Your task to perform on an android device: Open sound settings Image 0: 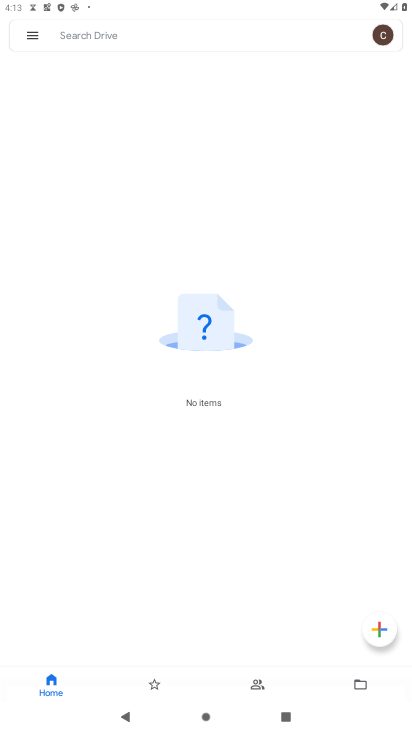
Step 0: press home button
Your task to perform on an android device: Open sound settings Image 1: 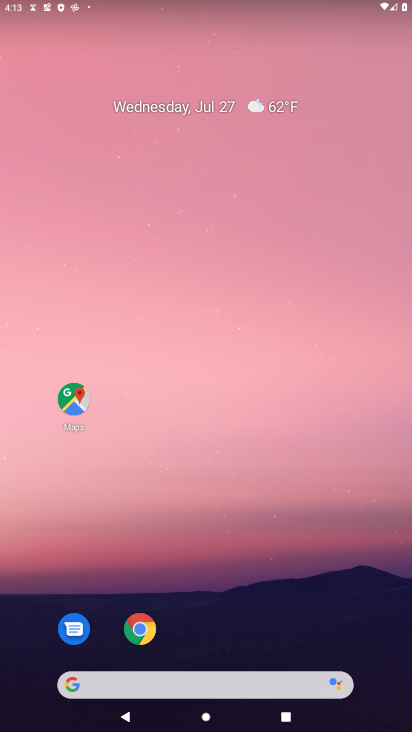
Step 1: drag from (185, 677) to (214, 196)
Your task to perform on an android device: Open sound settings Image 2: 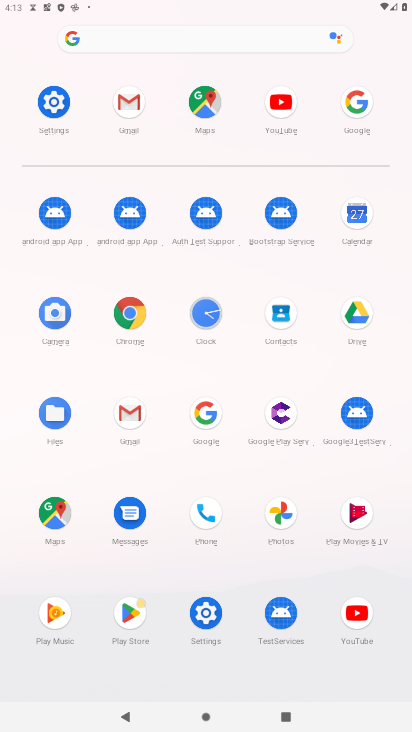
Step 2: click (53, 101)
Your task to perform on an android device: Open sound settings Image 3: 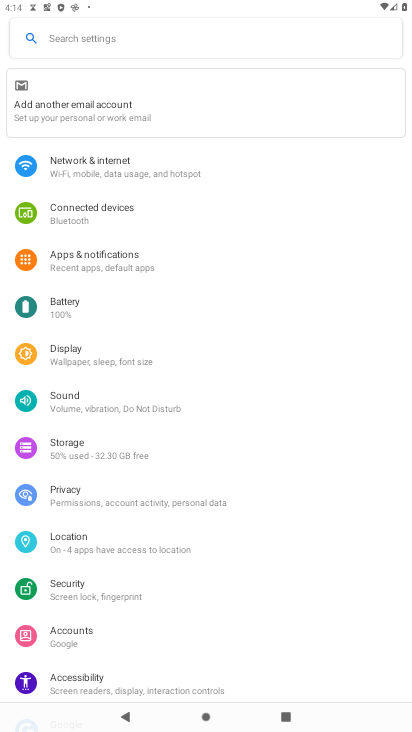
Step 3: click (89, 400)
Your task to perform on an android device: Open sound settings Image 4: 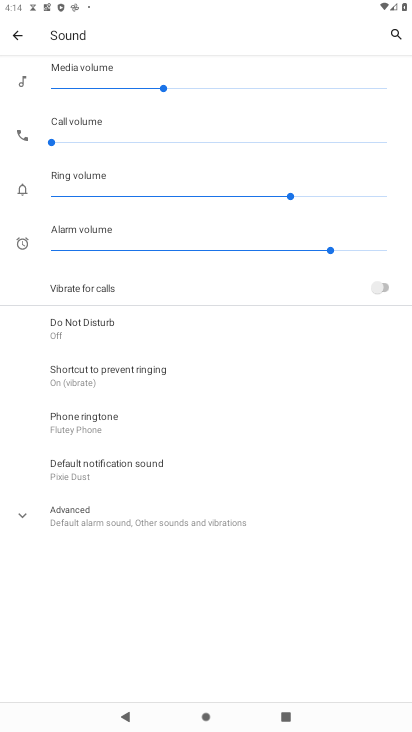
Step 4: task complete